Your task to perform on an android device: turn off airplane mode Image 0: 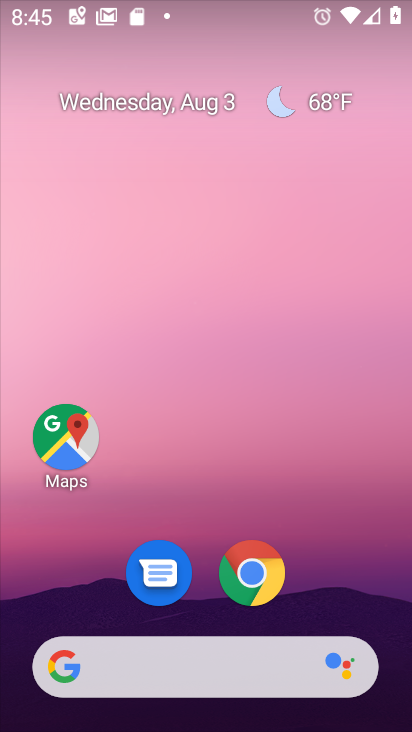
Step 0: drag from (362, 620) to (349, 2)
Your task to perform on an android device: turn off airplane mode Image 1: 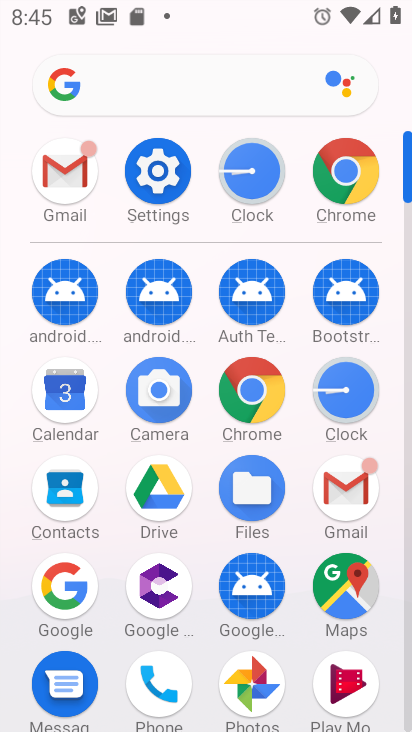
Step 1: click (162, 174)
Your task to perform on an android device: turn off airplane mode Image 2: 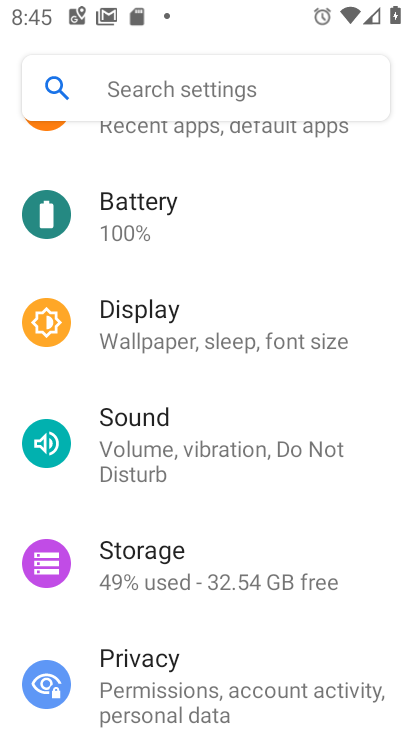
Step 2: drag from (314, 215) to (322, 677)
Your task to perform on an android device: turn off airplane mode Image 3: 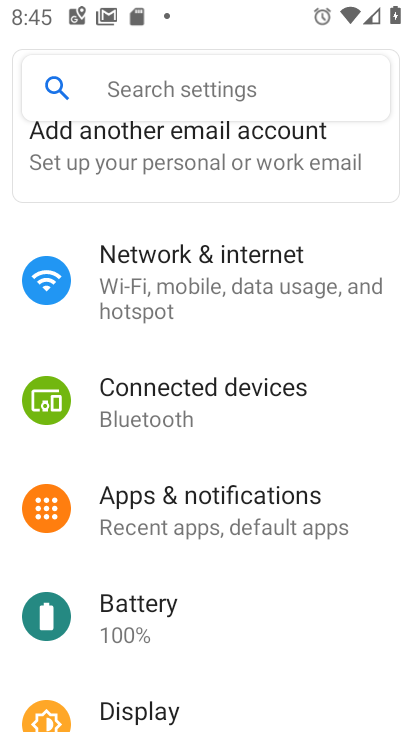
Step 3: click (166, 288)
Your task to perform on an android device: turn off airplane mode Image 4: 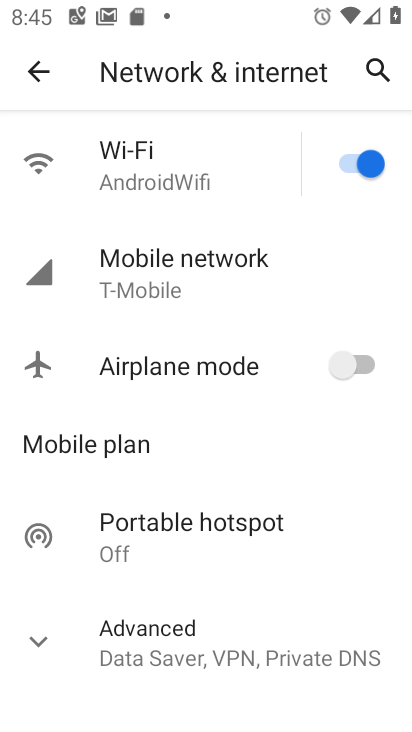
Step 4: task complete